Your task to perform on an android device: turn off notifications settings in the gmail app Image 0: 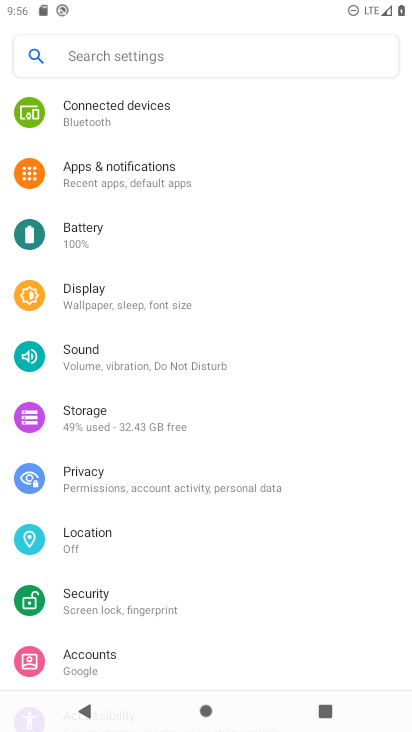
Step 0: drag from (253, 605) to (239, 236)
Your task to perform on an android device: turn off notifications settings in the gmail app Image 1: 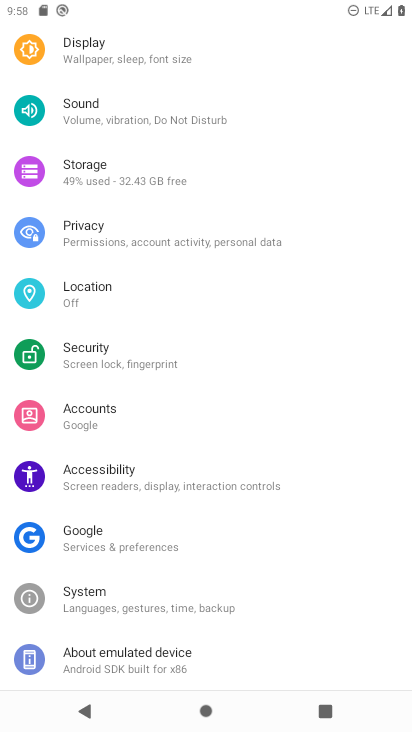
Step 1: drag from (202, 587) to (221, 663)
Your task to perform on an android device: turn off notifications settings in the gmail app Image 2: 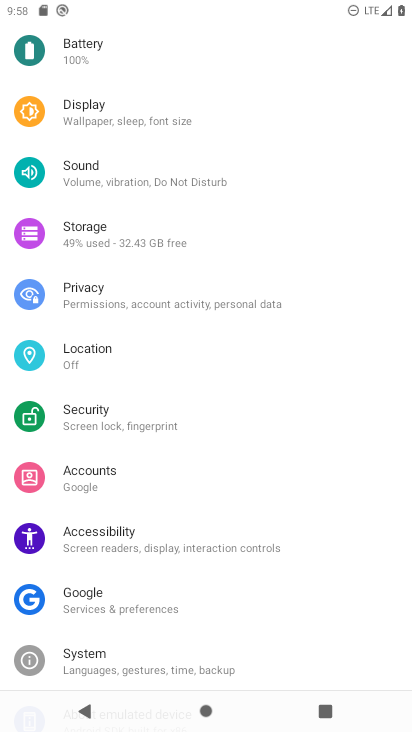
Step 2: drag from (276, 418) to (285, 515)
Your task to perform on an android device: turn off notifications settings in the gmail app Image 3: 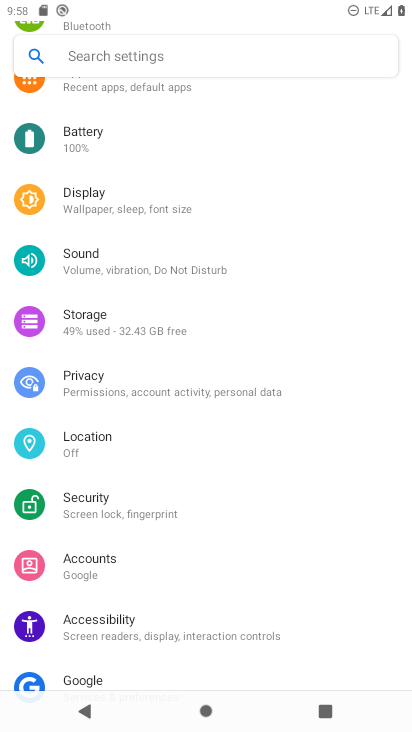
Step 3: drag from (224, 236) to (323, 504)
Your task to perform on an android device: turn off notifications settings in the gmail app Image 4: 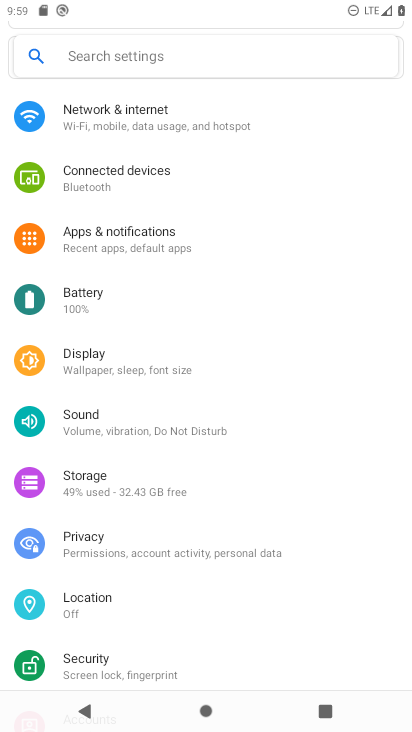
Step 4: click (256, 246)
Your task to perform on an android device: turn off notifications settings in the gmail app Image 5: 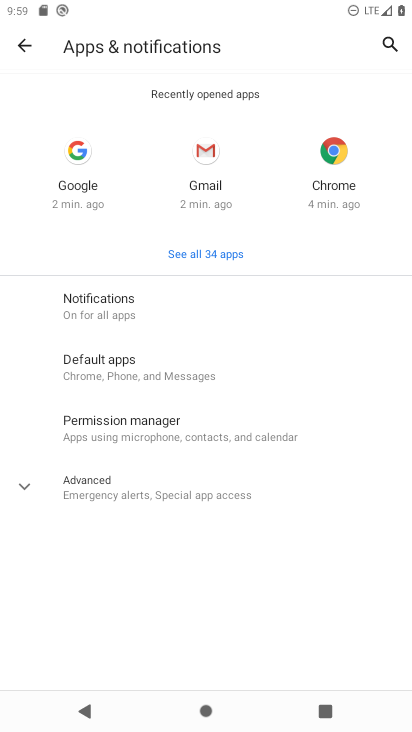
Step 5: task complete